Your task to perform on an android device: Go to privacy settings Image 0: 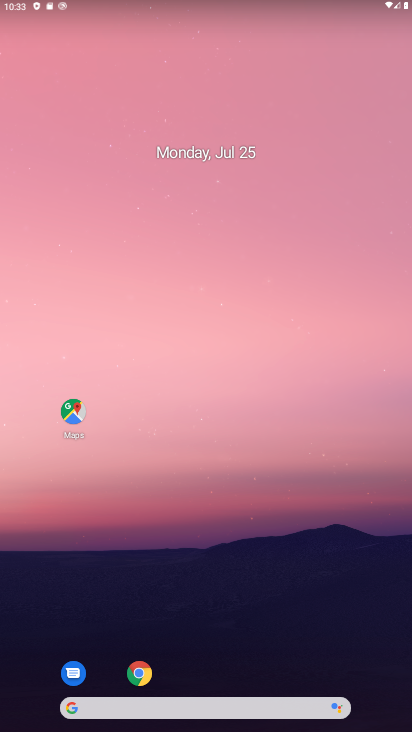
Step 0: press home button
Your task to perform on an android device: Go to privacy settings Image 1: 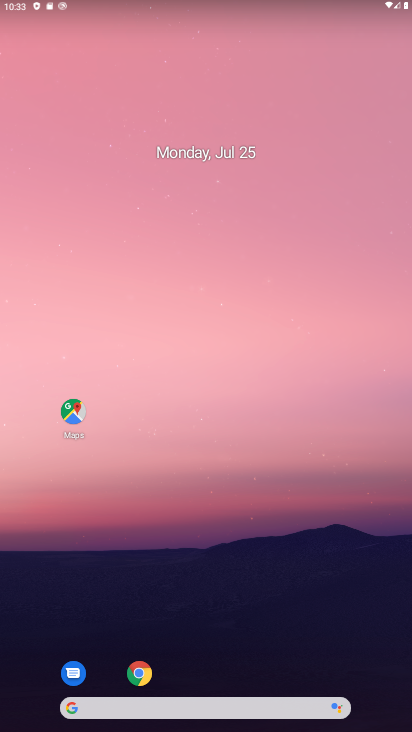
Step 1: drag from (218, 684) to (225, 12)
Your task to perform on an android device: Go to privacy settings Image 2: 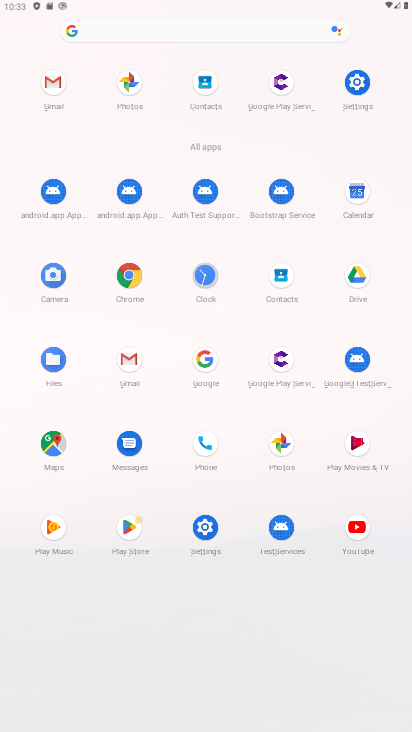
Step 2: click (356, 76)
Your task to perform on an android device: Go to privacy settings Image 3: 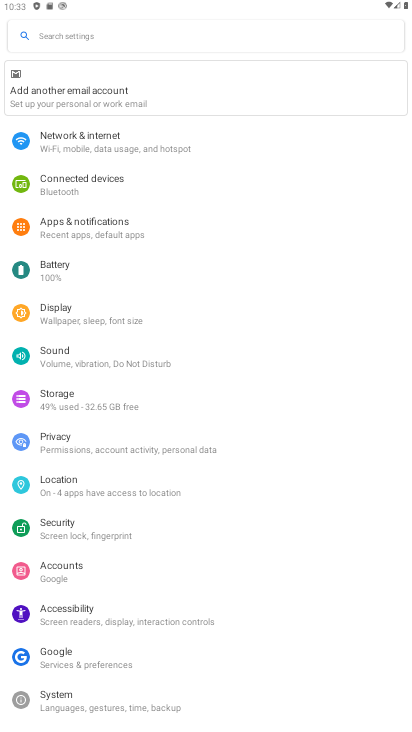
Step 3: click (88, 440)
Your task to perform on an android device: Go to privacy settings Image 4: 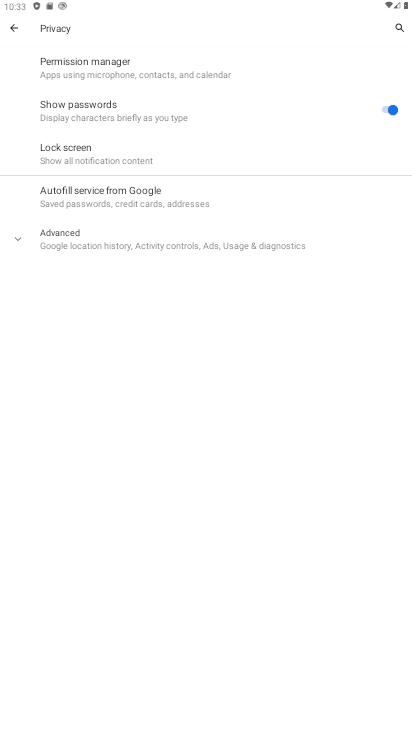
Step 4: click (17, 236)
Your task to perform on an android device: Go to privacy settings Image 5: 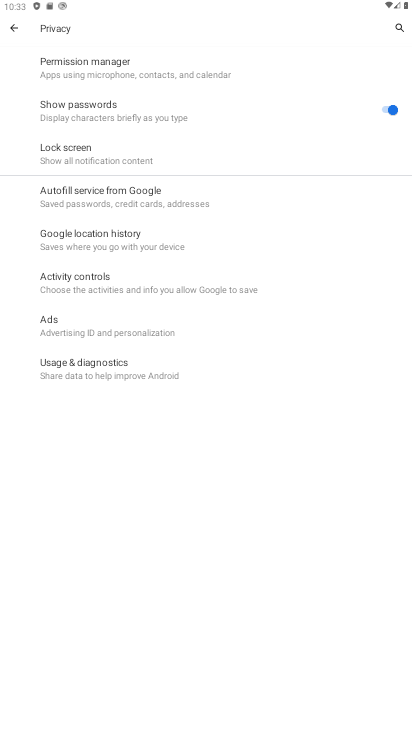
Step 5: task complete